Your task to perform on an android device: turn off notifications in google photos Image 0: 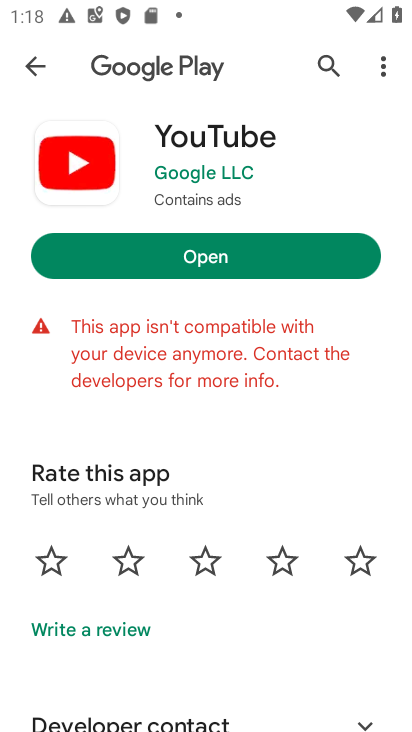
Step 0: press home button
Your task to perform on an android device: turn off notifications in google photos Image 1: 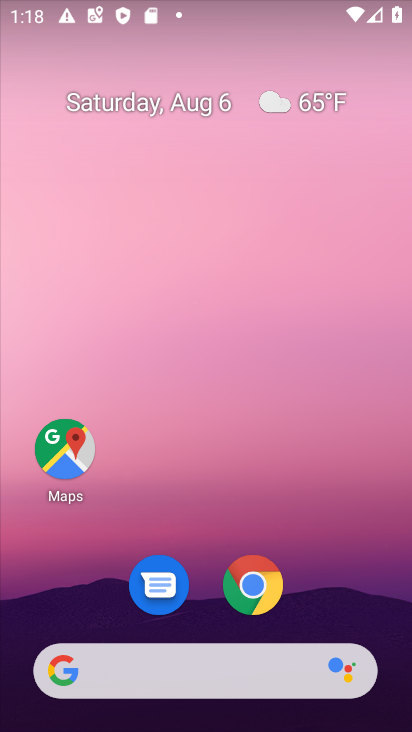
Step 1: drag from (223, 497) to (231, 0)
Your task to perform on an android device: turn off notifications in google photos Image 2: 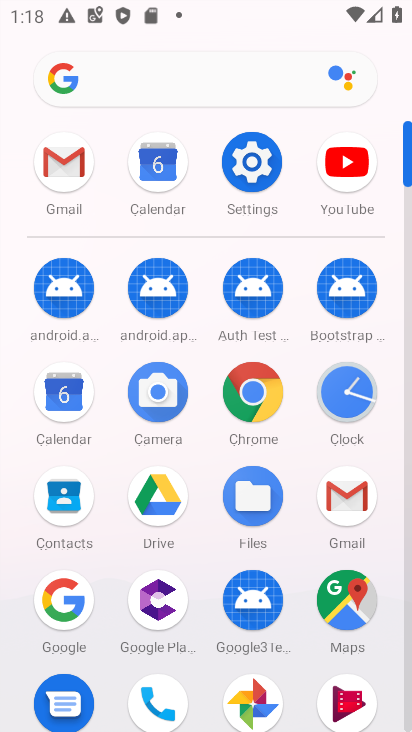
Step 2: click (255, 690)
Your task to perform on an android device: turn off notifications in google photos Image 3: 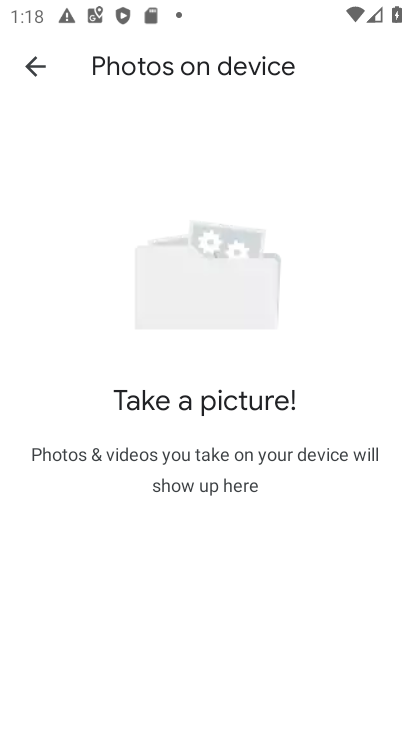
Step 3: click (32, 58)
Your task to perform on an android device: turn off notifications in google photos Image 4: 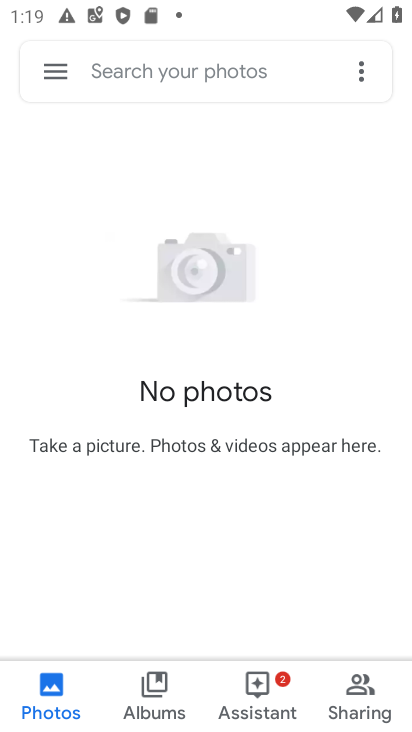
Step 4: click (58, 69)
Your task to perform on an android device: turn off notifications in google photos Image 5: 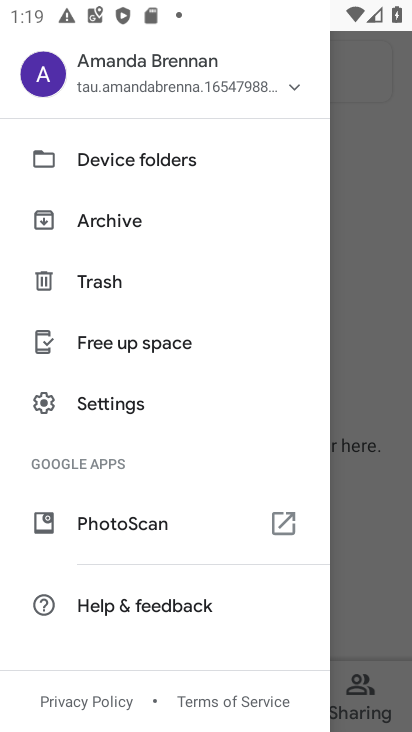
Step 5: click (92, 401)
Your task to perform on an android device: turn off notifications in google photos Image 6: 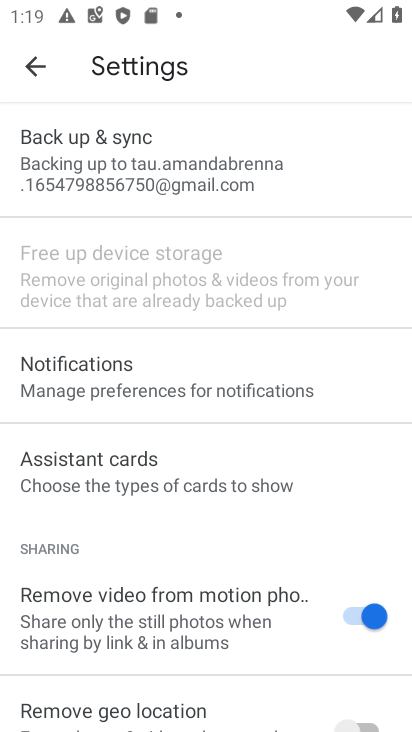
Step 6: click (143, 385)
Your task to perform on an android device: turn off notifications in google photos Image 7: 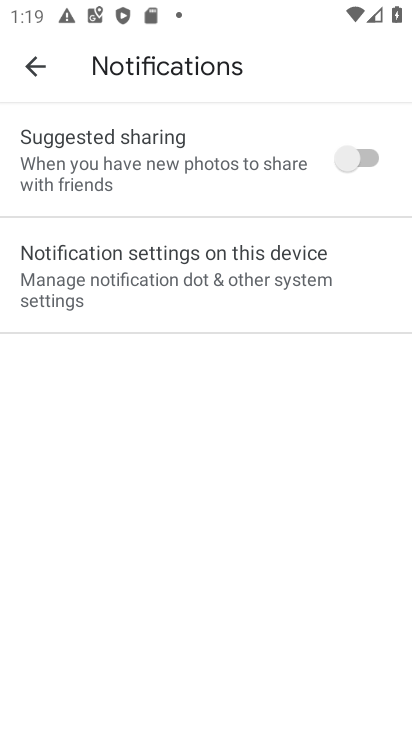
Step 7: click (289, 252)
Your task to perform on an android device: turn off notifications in google photos Image 8: 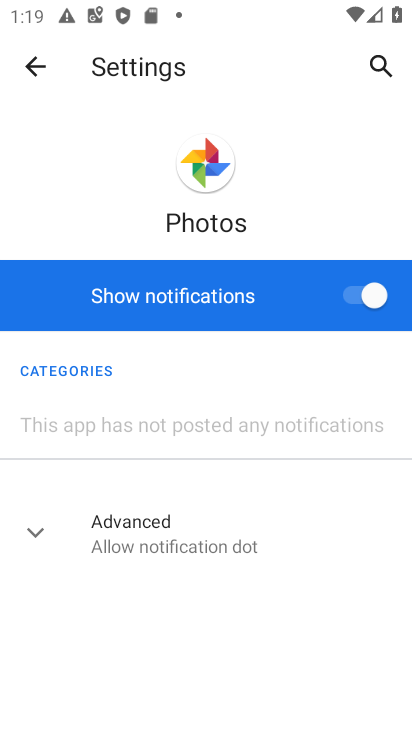
Step 8: click (354, 294)
Your task to perform on an android device: turn off notifications in google photos Image 9: 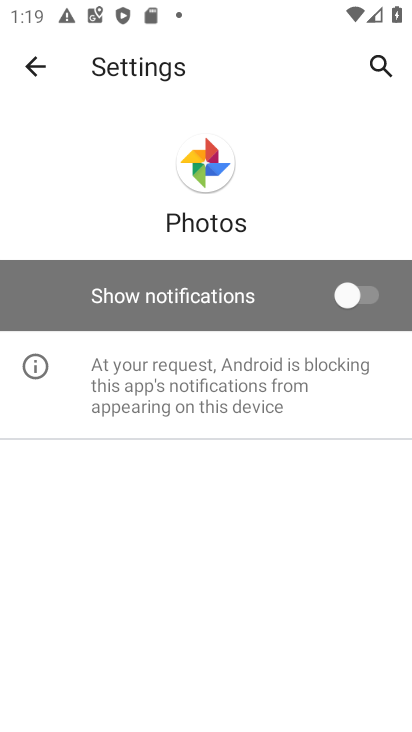
Step 9: task complete